Your task to perform on an android device: open app "Microsoft Authenticator" (install if not already installed) Image 0: 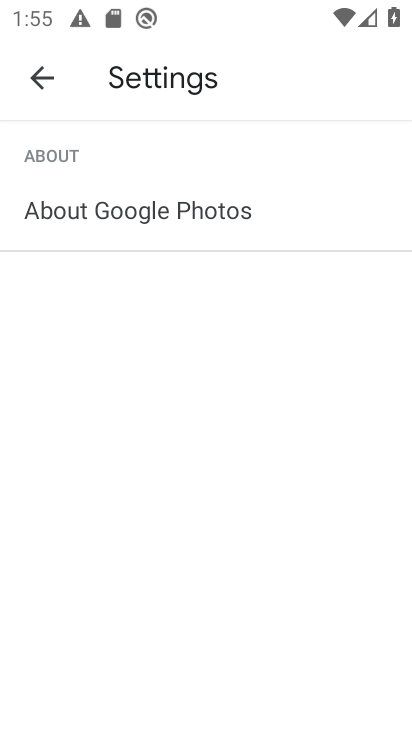
Step 0: press home button
Your task to perform on an android device: open app "Microsoft Authenticator" (install if not already installed) Image 1: 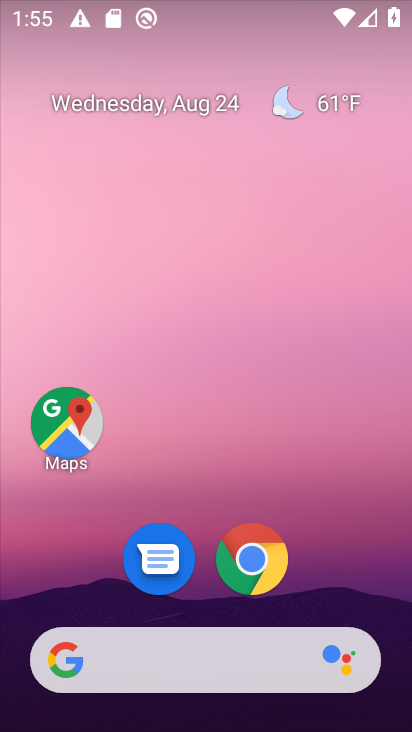
Step 1: drag from (156, 632) to (237, 63)
Your task to perform on an android device: open app "Microsoft Authenticator" (install if not already installed) Image 2: 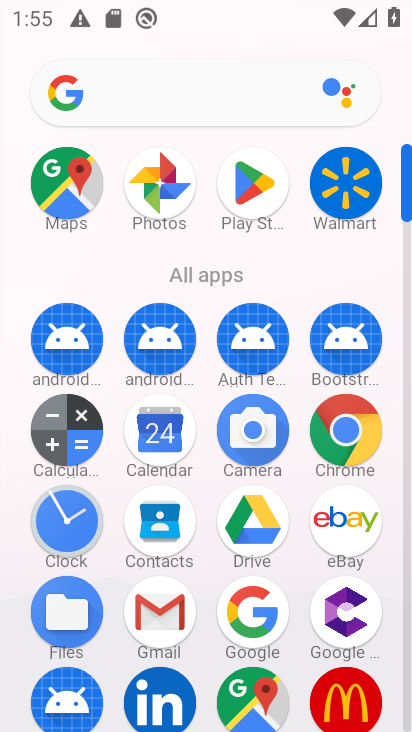
Step 2: click (253, 184)
Your task to perform on an android device: open app "Microsoft Authenticator" (install if not already installed) Image 3: 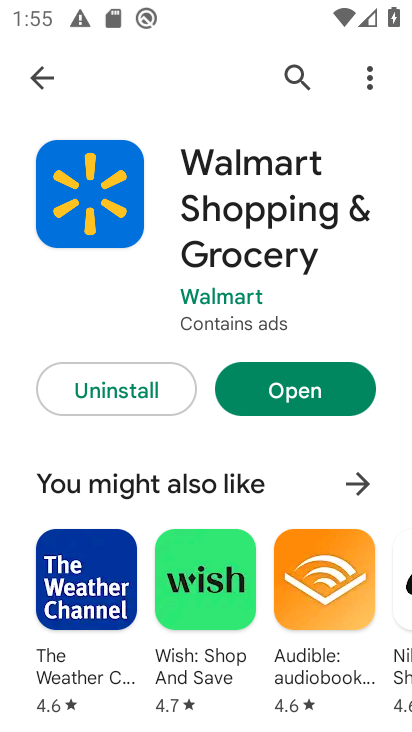
Step 3: click (293, 79)
Your task to perform on an android device: open app "Microsoft Authenticator" (install if not already installed) Image 4: 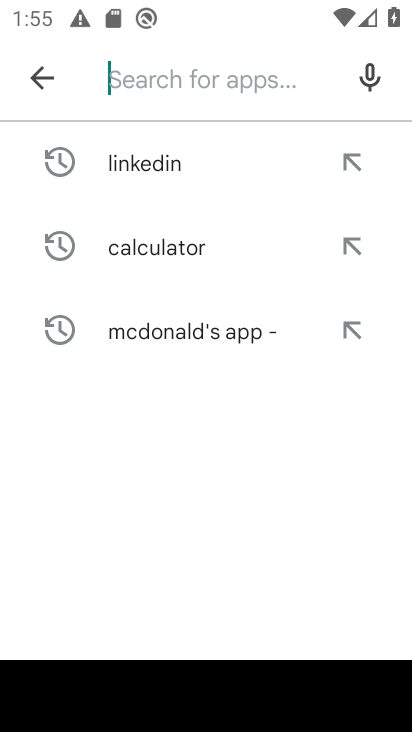
Step 4: type "Microsoft Authenticator"
Your task to perform on an android device: open app "Microsoft Authenticator" (install if not already installed) Image 5: 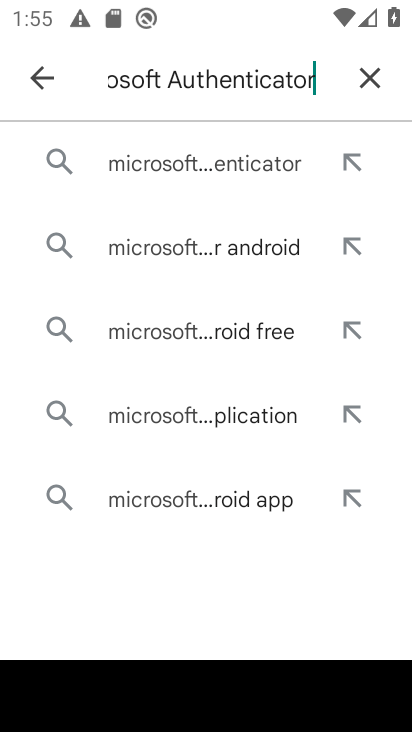
Step 5: click (190, 175)
Your task to perform on an android device: open app "Microsoft Authenticator" (install if not already installed) Image 6: 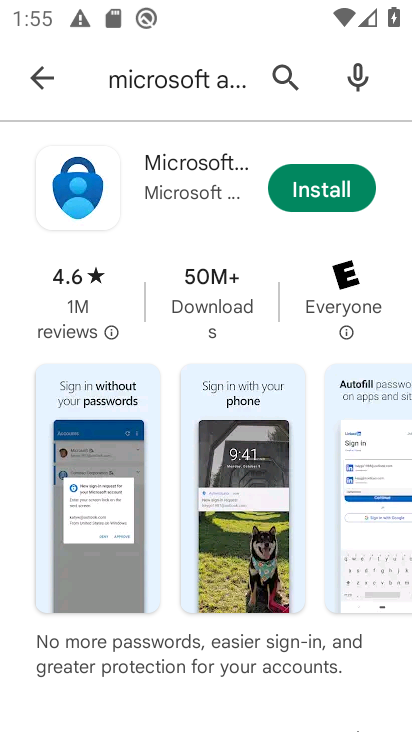
Step 6: click (298, 181)
Your task to perform on an android device: open app "Microsoft Authenticator" (install if not already installed) Image 7: 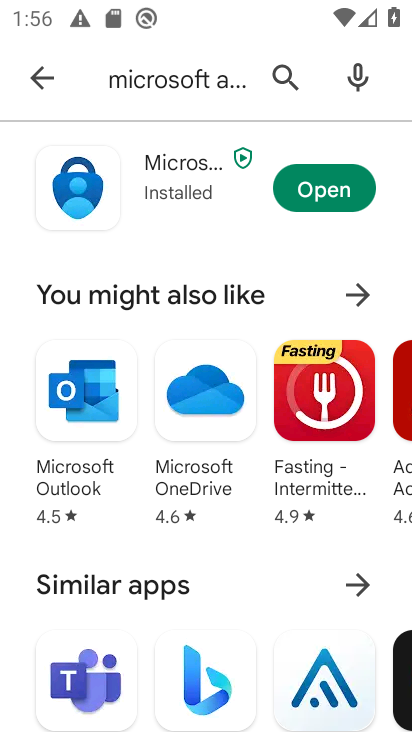
Step 7: click (327, 189)
Your task to perform on an android device: open app "Microsoft Authenticator" (install if not already installed) Image 8: 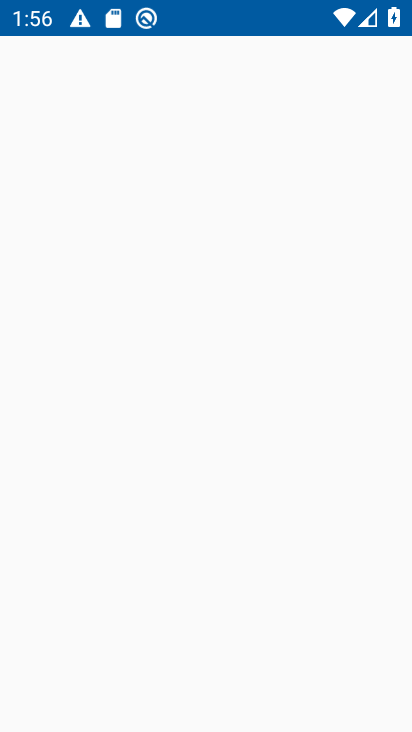
Step 8: task complete